Your task to perform on an android device: Search for Italian restaurants on Maps Image 0: 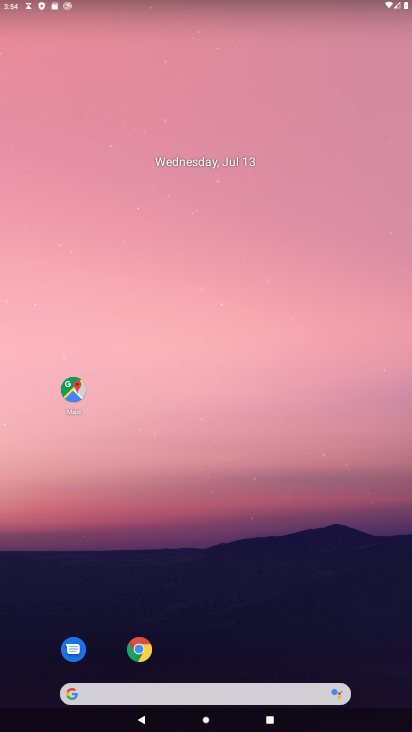
Step 0: drag from (231, 701) to (234, 146)
Your task to perform on an android device: Search for Italian restaurants on Maps Image 1: 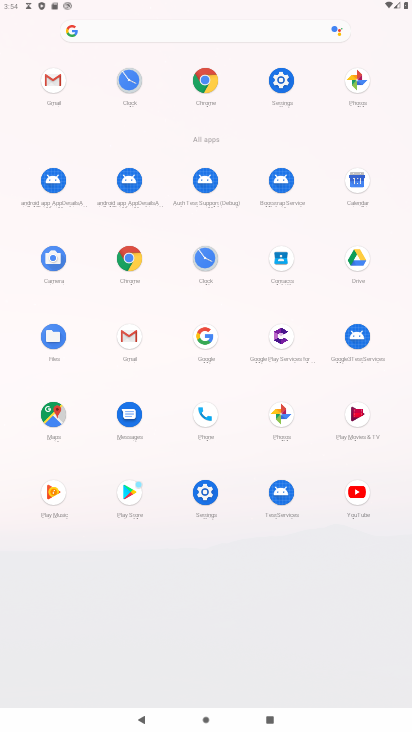
Step 1: click (53, 414)
Your task to perform on an android device: Search for Italian restaurants on Maps Image 2: 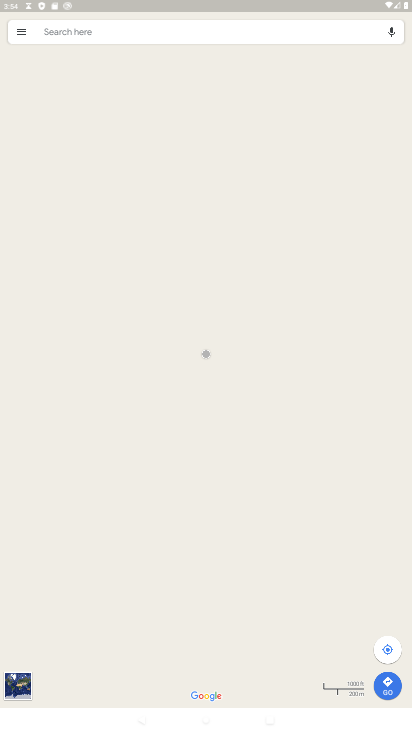
Step 2: click (300, 32)
Your task to perform on an android device: Search for Italian restaurants on Maps Image 3: 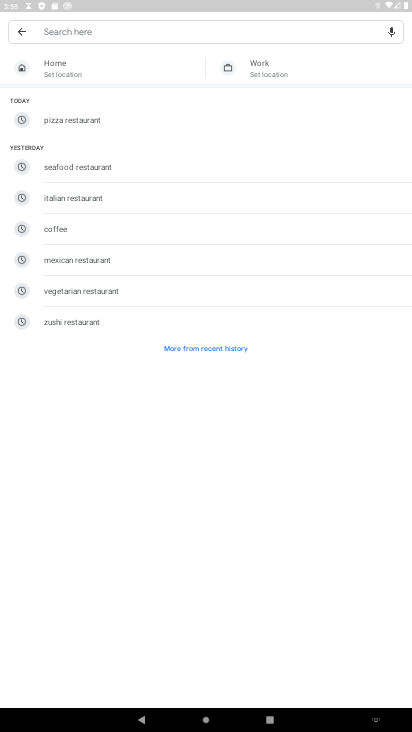
Step 3: type "italian restaurants "
Your task to perform on an android device: Search for Italian restaurants on Maps Image 4: 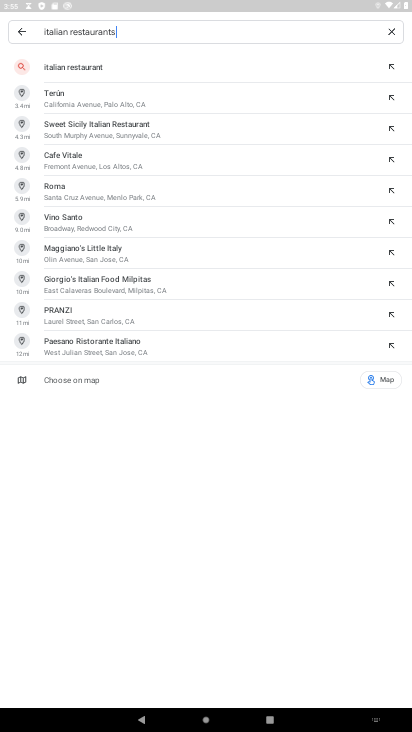
Step 4: click (91, 68)
Your task to perform on an android device: Search for Italian restaurants on Maps Image 5: 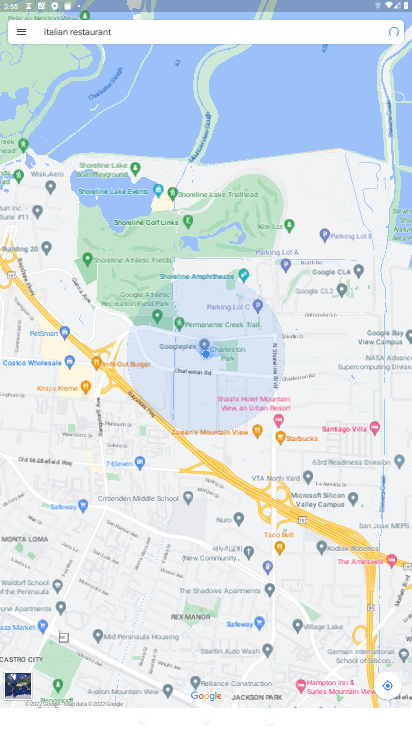
Step 5: task complete